Your task to perform on an android device: open chrome and create a bookmark for the current page Image 0: 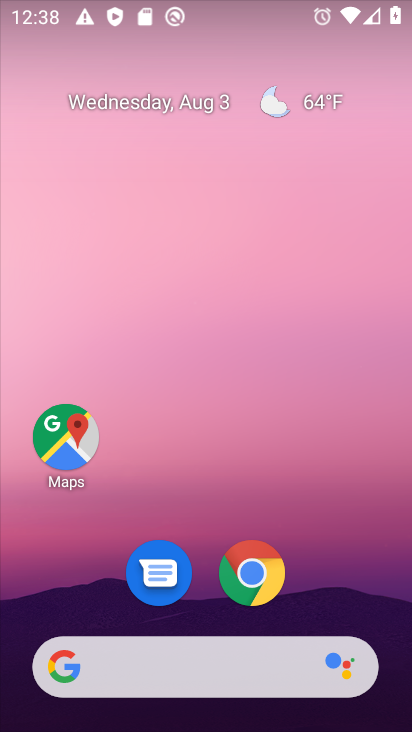
Step 0: drag from (248, 646) to (335, 54)
Your task to perform on an android device: open chrome and create a bookmark for the current page Image 1: 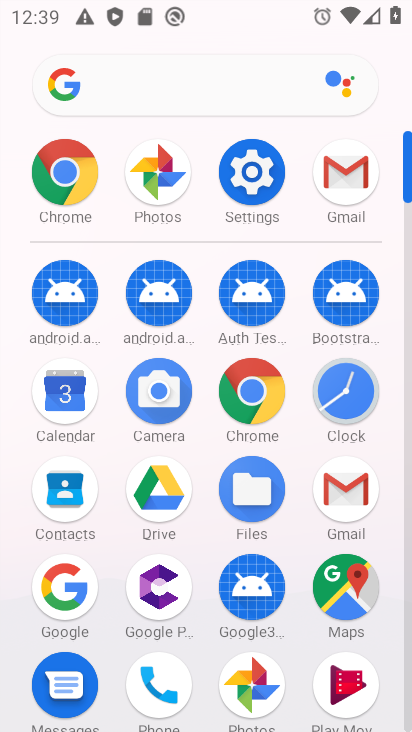
Step 1: drag from (145, 517) to (138, 155)
Your task to perform on an android device: open chrome and create a bookmark for the current page Image 2: 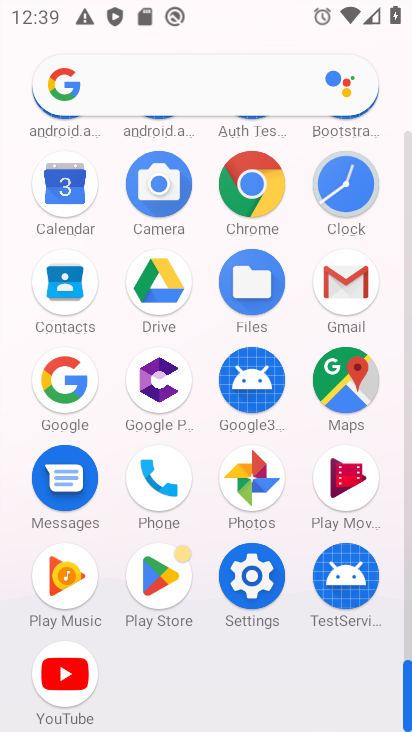
Step 2: click (267, 207)
Your task to perform on an android device: open chrome and create a bookmark for the current page Image 3: 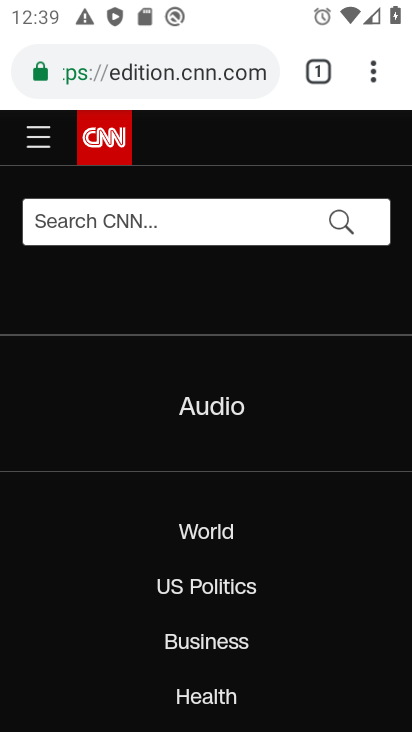
Step 3: click (386, 76)
Your task to perform on an android device: open chrome and create a bookmark for the current page Image 4: 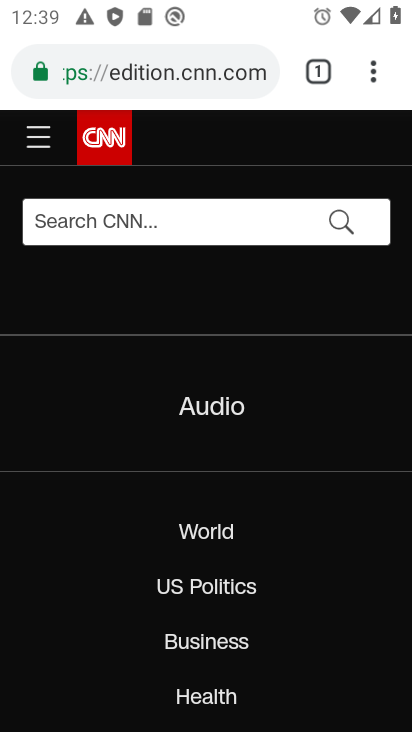
Step 4: click (379, 79)
Your task to perform on an android device: open chrome and create a bookmark for the current page Image 5: 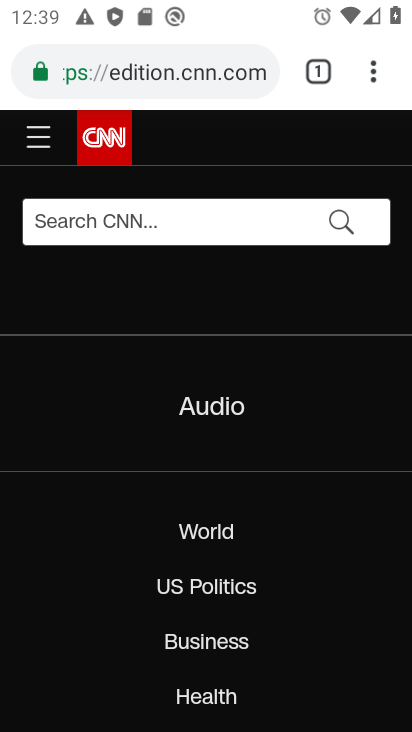
Step 5: click (371, 73)
Your task to perform on an android device: open chrome and create a bookmark for the current page Image 6: 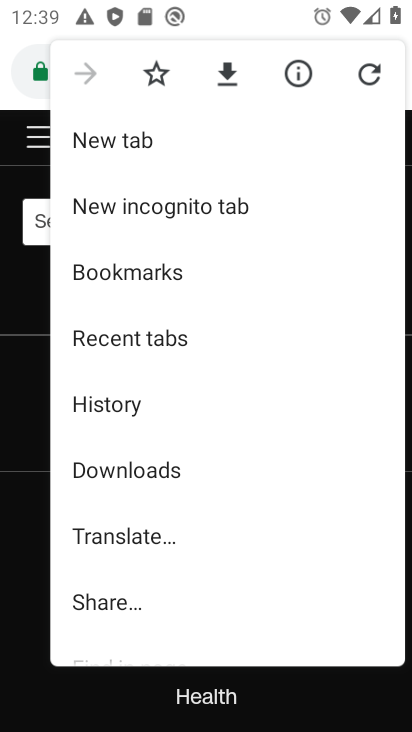
Step 6: click (147, 71)
Your task to perform on an android device: open chrome and create a bookmark for the current page Image 7: 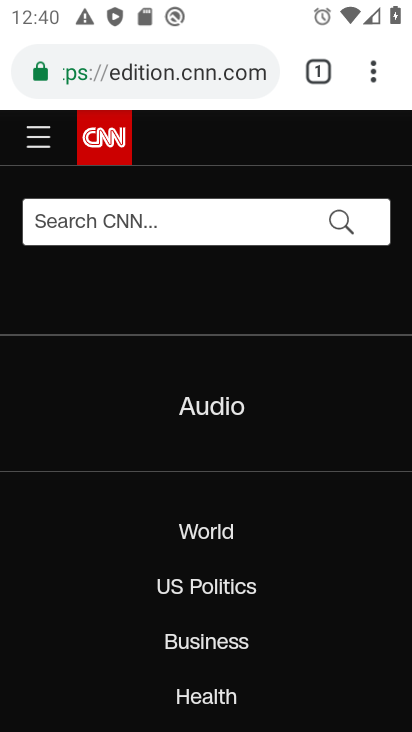
Step 7: task complete